Your task to perform on an android device: open a new tab in the chrome app Image 0: 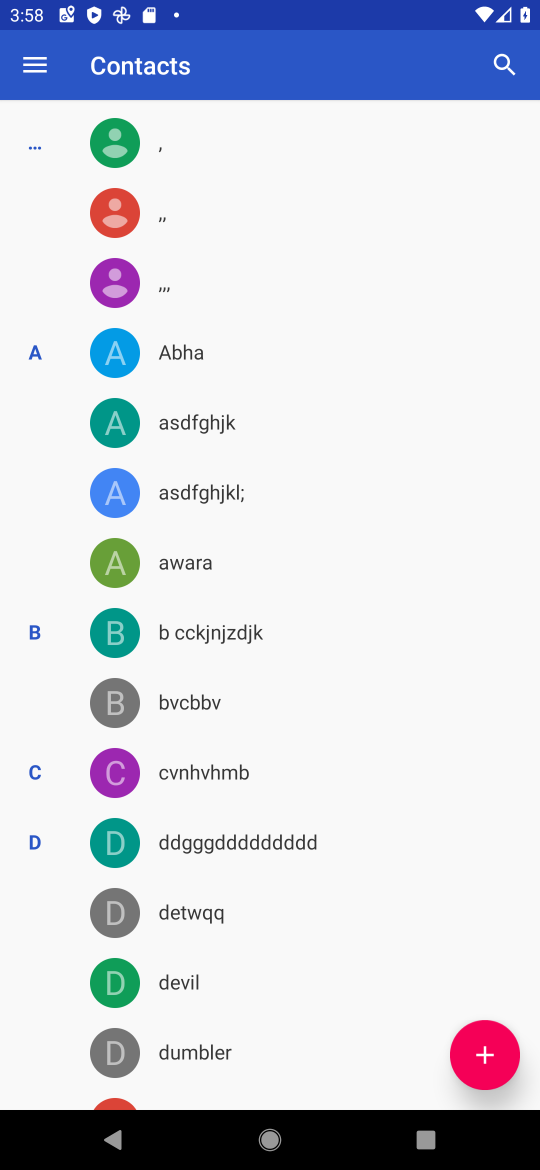
Step 0: press home button
Your task to perform on an android device: open a new tab in the chrome app Image 1: 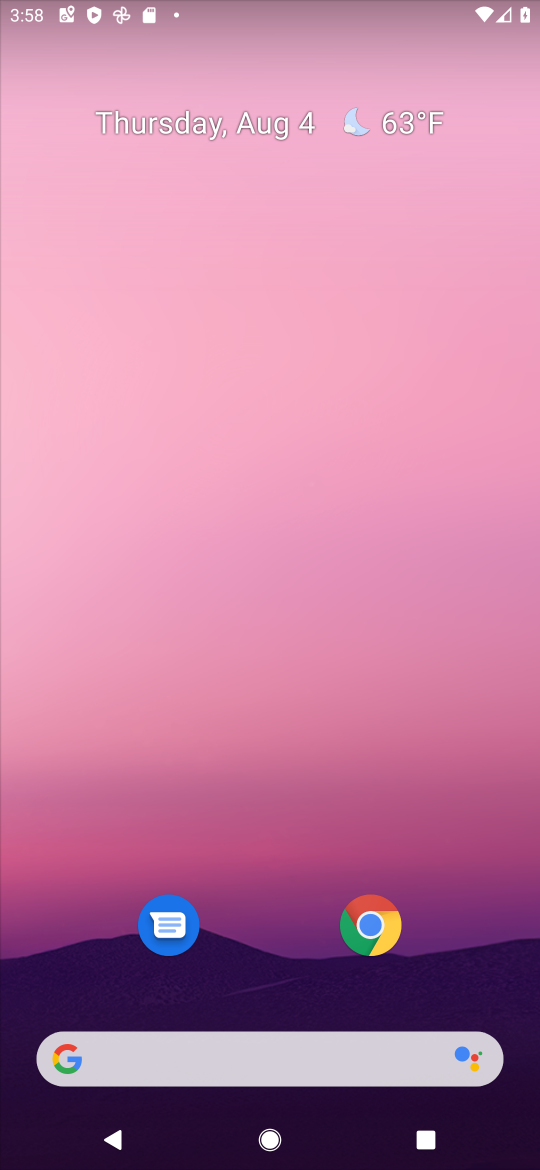
Step 1: click (361, 935)
Your task to perform on an android device: open a new tab in the chrome app Image 2: 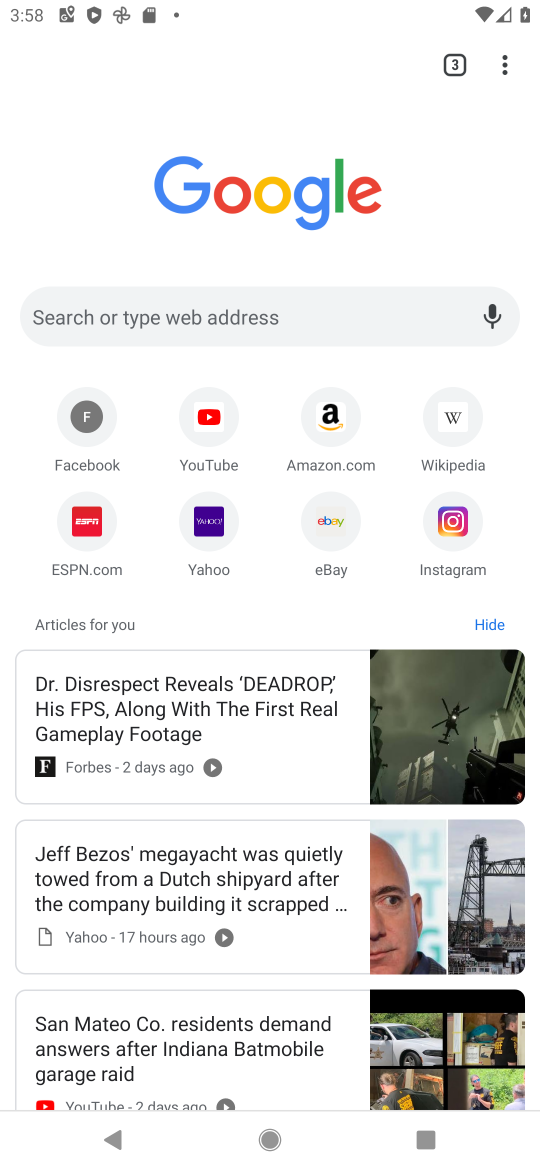
Step 2: click (450, 62)
Your task to perform on an android device: open a new tab in the chrome app Image 3: 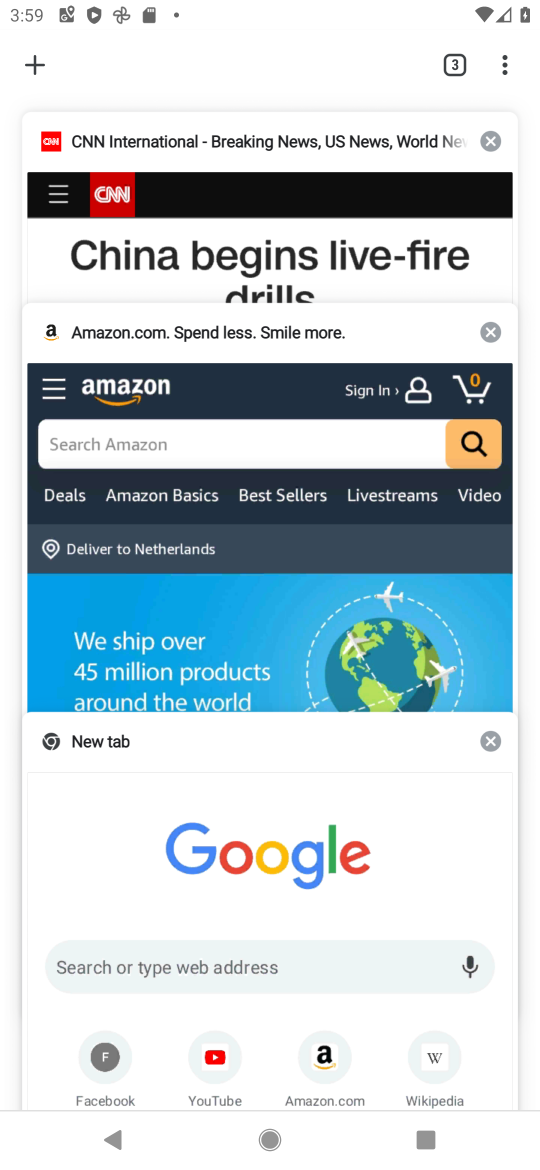
Step 3: click (30, 67)
Your task to perform on an android device: open a new tab in the chrome app Image 4: 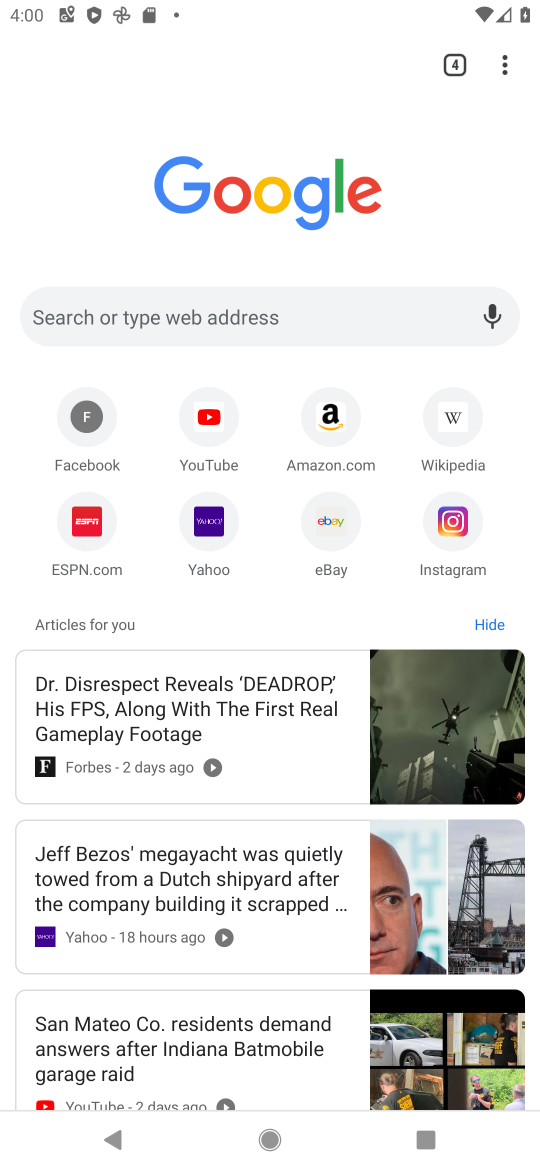
Step 4: task complete